Your task to perform on an android device: toggle translation in the chrome app Image 0: 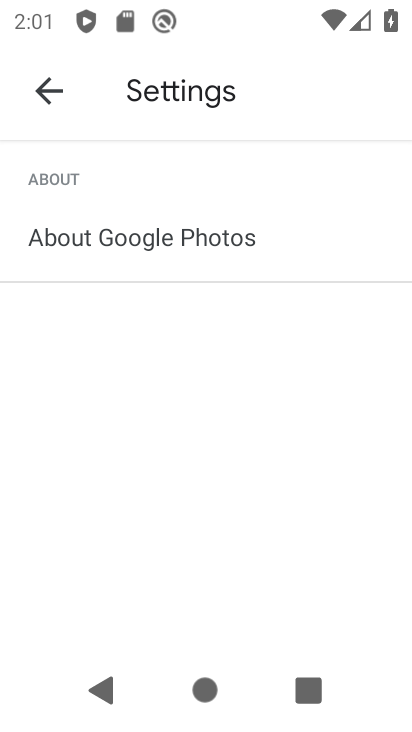
Step 0: press home button
Your task to perform on an android device: toggle translation in the chrome app Image 1: 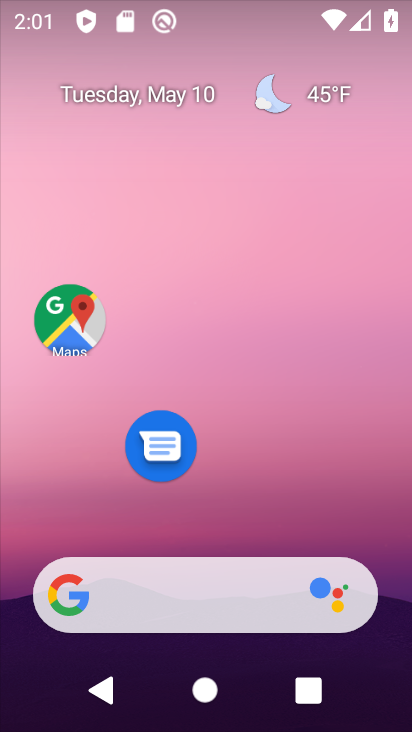
Step 1: drag from (233, 521) to (254, 63)
Your task to perform on an android device: toggle translation in the chrome app Image 2: 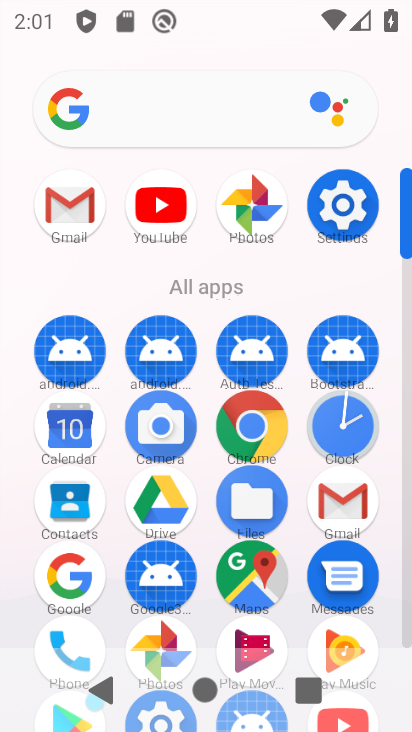
Step 2: drag from (201, 496) to (224, 274)
Your task to perform on an android device: toggle translation in the chrome app Image 3: 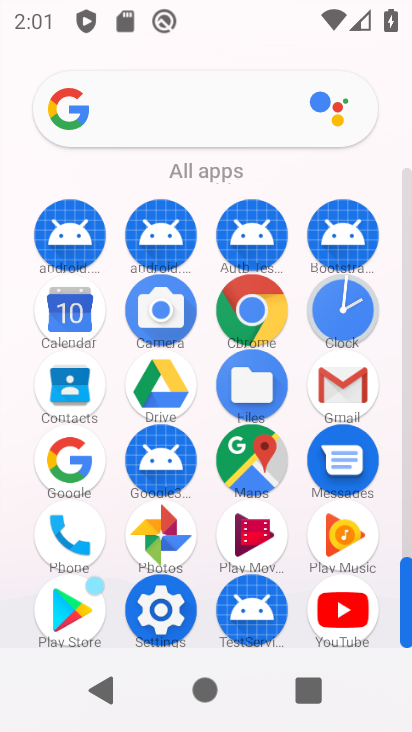
Step 3: click (253, 310)
Your task to perform on an android device: toggle translation in the chrome app Image 4: 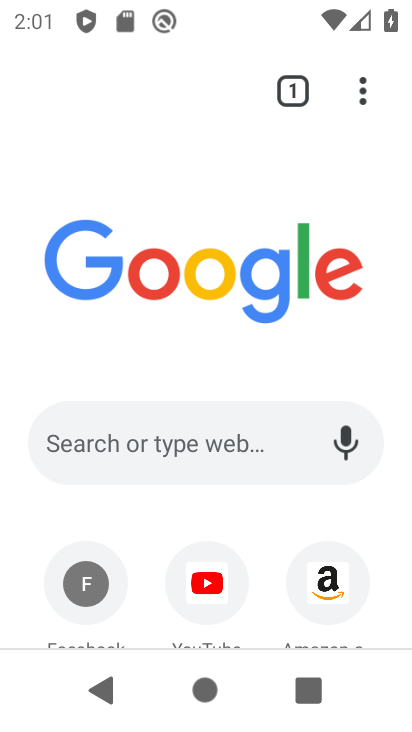
Step 4: click (348, 88)
Your task to perform on an android device: toggle translation in the chrome app Image 5: 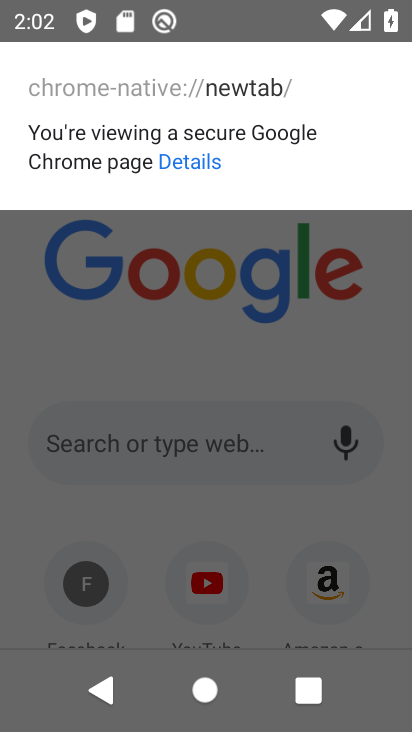
Step 5: click (281, 255)
Your task to perform on an android device: toggle translation in the chrome app Image 6: 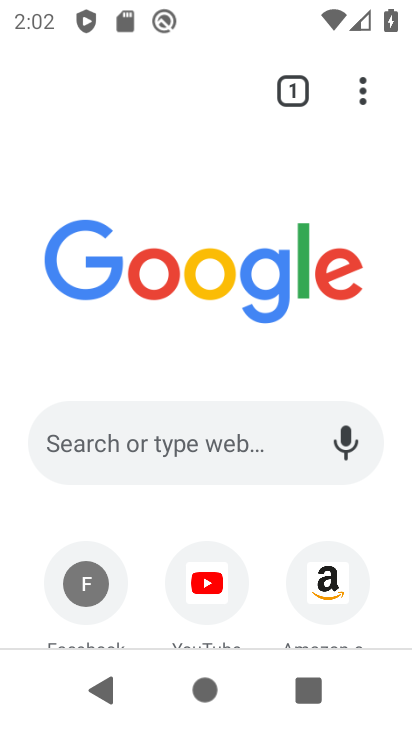
Step 6: click (281, 255)
Your task to perform on an android device: toggle translation in the chrome app Image 7: 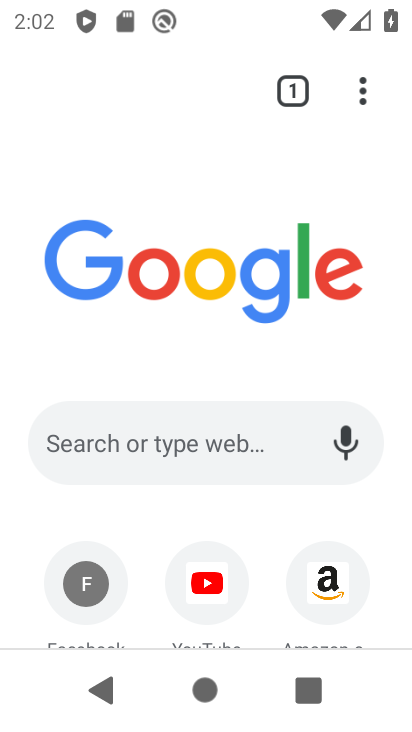
Step 7: click (354, 98)
Your task to perform on an android device: toggle translation in the chrome app Image 8: 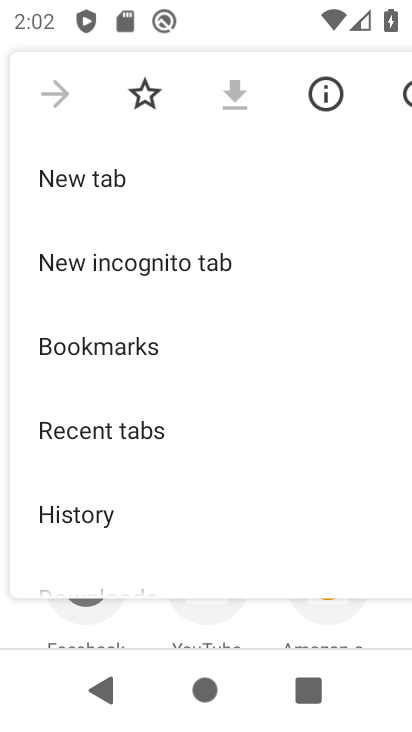
Step 8: drag from (236, 460) to (274, 52)
Your task to perform on an android device: toggle translation in the chrome app Image 9: 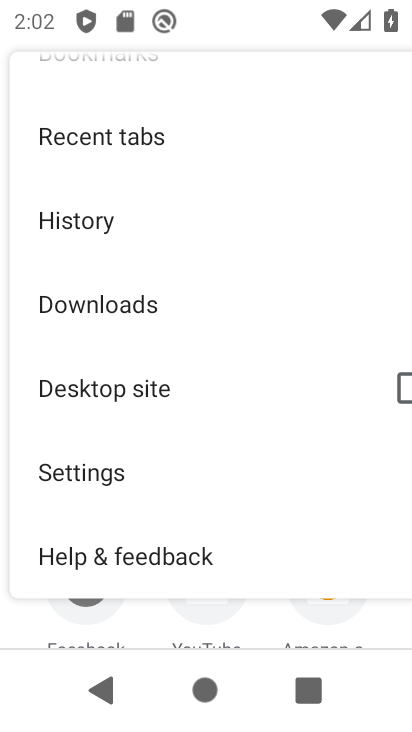
Step 9: click (129, 474)
Your task to perform on an android device: toggle translation in the chrome app Image 10: 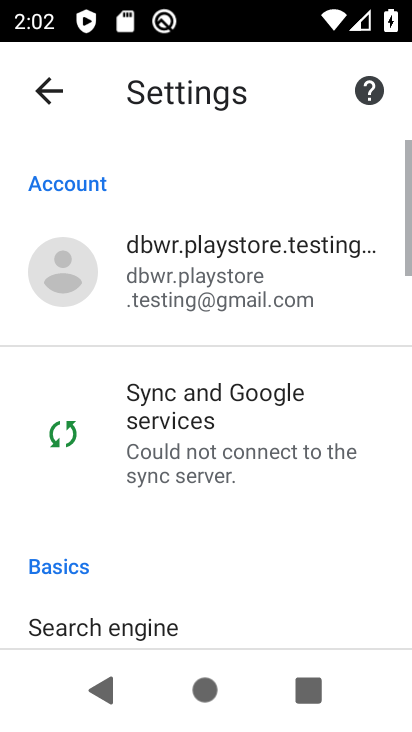
Step 10: drag from (280, 478) to (275, 55)
Your task to perform on an android device: toggle translation in the chrome app Image 11: 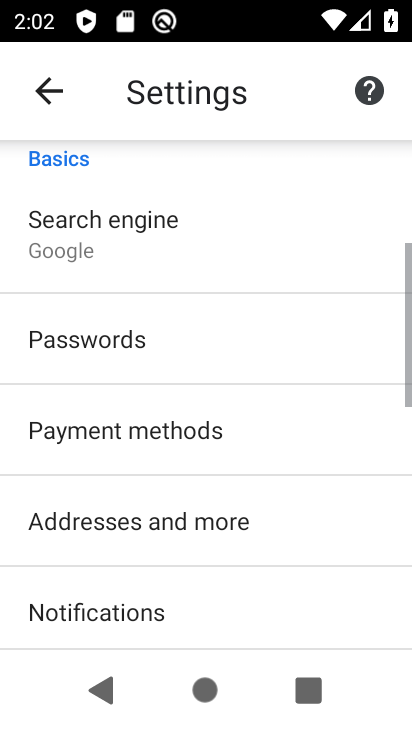
Step 11: drag from (198, 603) to (241, 133)
Your task to perform on an android device: toggle translation in the chrome app Image 12: 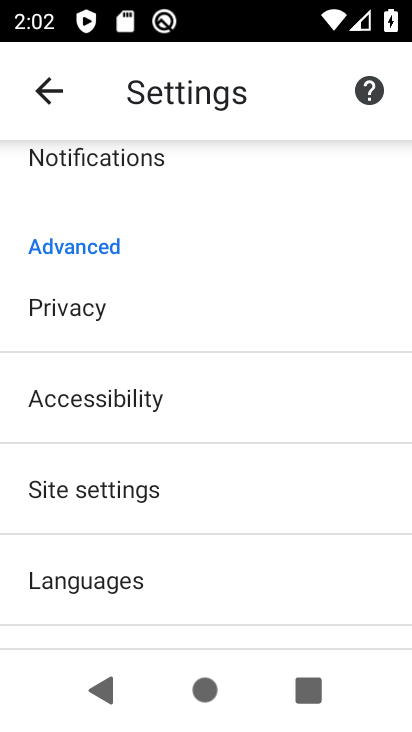
Step 12: drag from (173, 579) to (207, 264)
Your task to perform on an android device: toggle translation in the chrome app Image 13: 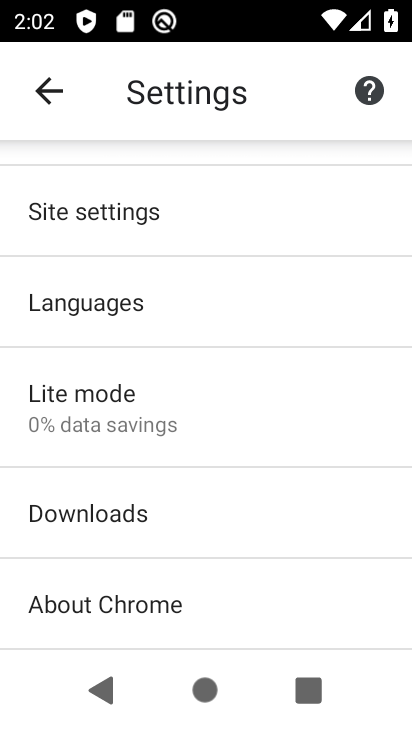
Step 13: click (116, 305)
Your task to perform on an android device: toggle translation in the chrome app Image 14: 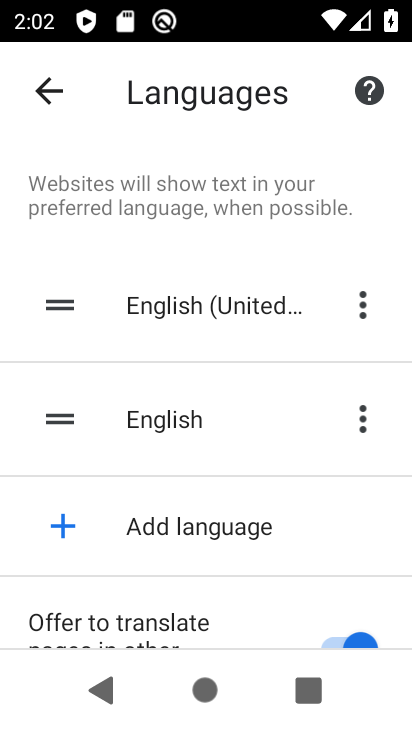
Step 14: click (364, 638)
Your task to perform on an android device: toggle translation in the chrome app Image 15: 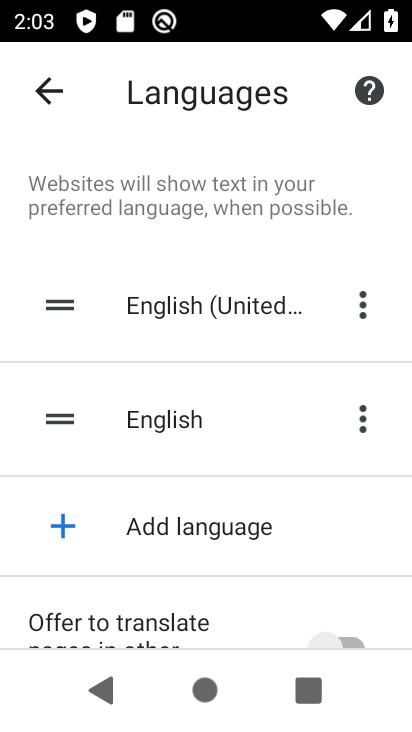
Step 15: task complete